Your task to perform on an android device: add a contact in the contacts app Image 0: 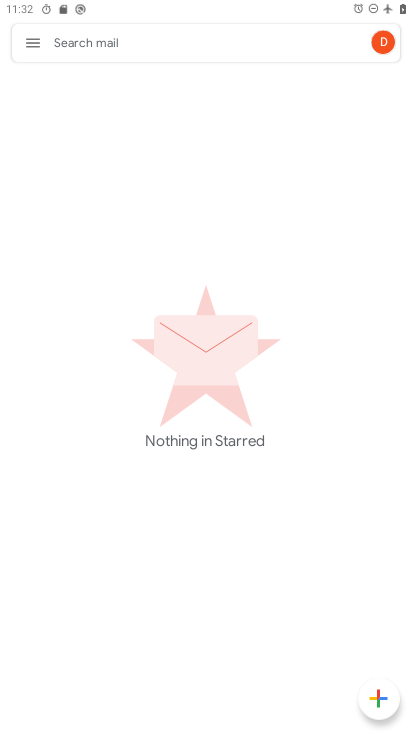
Step 0: press home button
Your task to perform on an android device: add a contact in the contacts app Image 1: 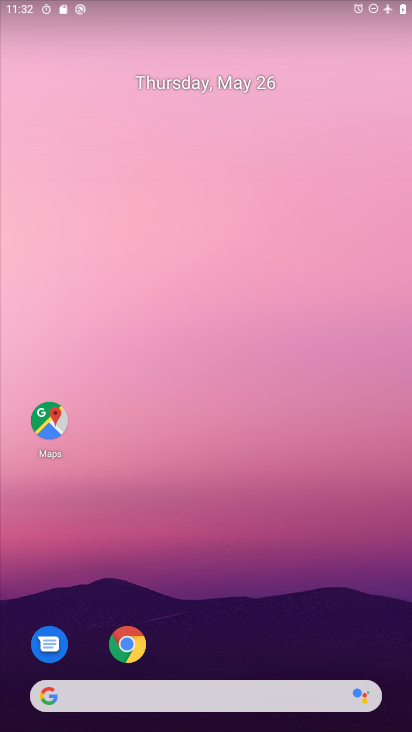
Step 1: drag from (360, 653) to (342, 240)
Your task to perform on an android device: add a contact in the contacts app Image 2: 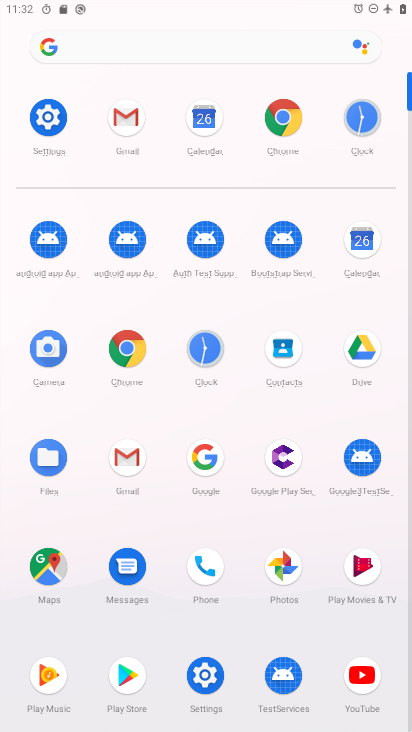
Step 2: click (280, 350)
Your task to perform on an android device: add a contact in the contacts app Image 3: 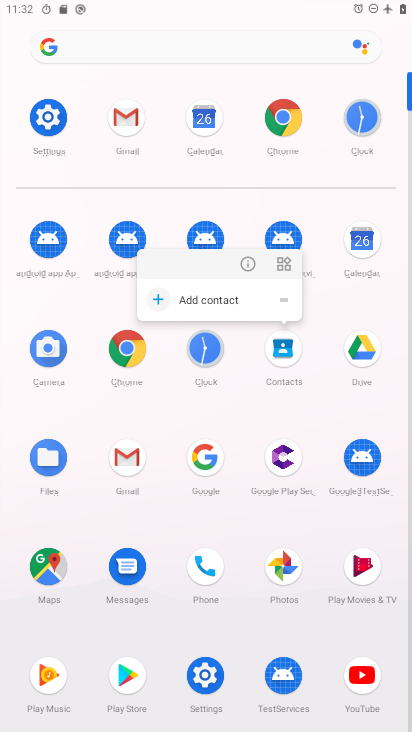
Step 3: click (280, 350)
Your task to perform on an android device: add a contact in the contacts app Image 4: 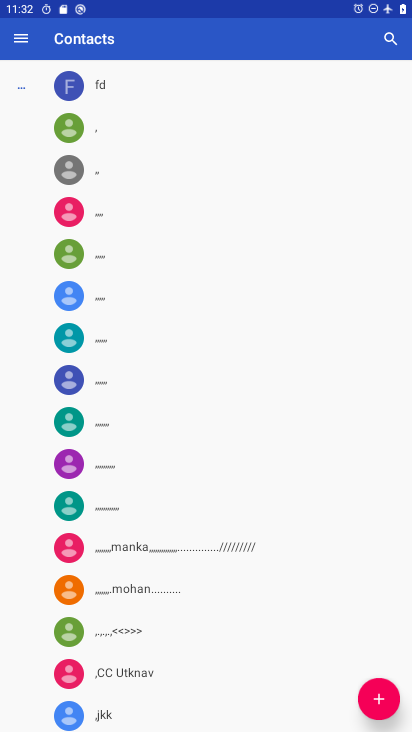
Step 4: click (376, 709)
Your task to perform on an android device: add a contact in the contacts app Image 5: 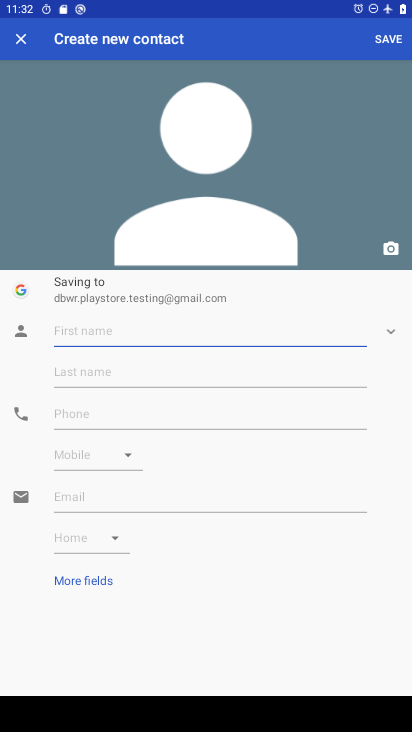
Step 5: click (195, 336)
Your task to perform on an android device: add a contact in the contacts app Image 6: 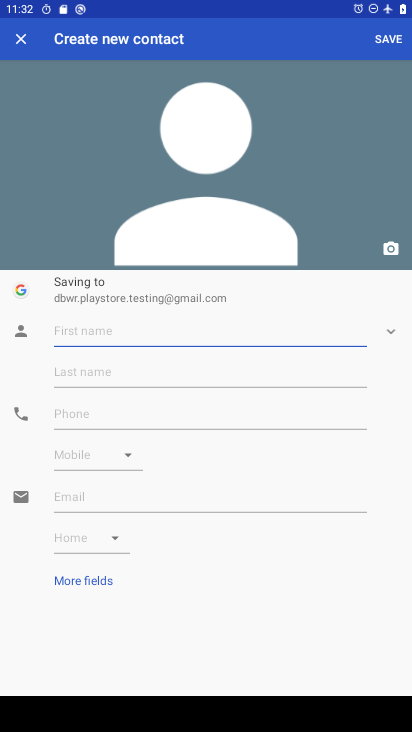
Step 6: type "my life"
Your task to perform on an android device: add a contact in the contacts app Image 7: 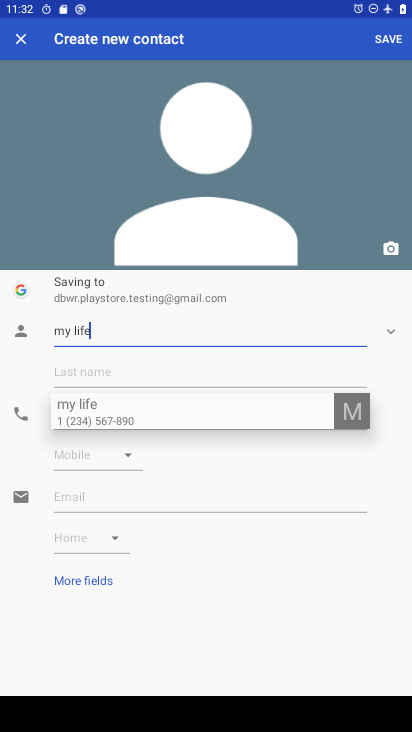
Step 7: click (401, 400)
Your task to perform on an android device: add a contact in the contacts app Image 8: 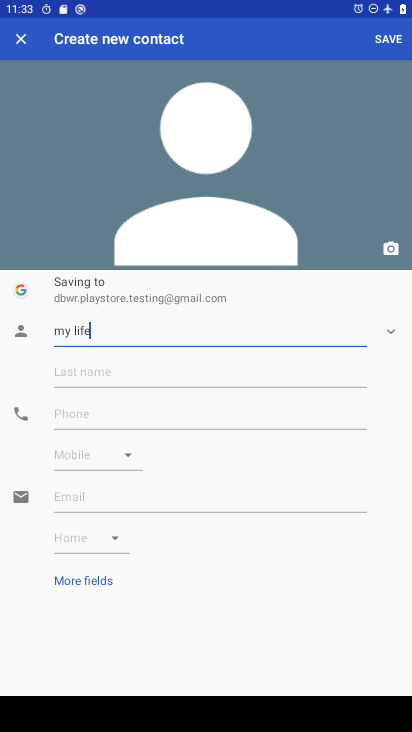
Step 8: click (143, 405)
Your task to perform on an android device: add a contact in the contacts app Image 9: 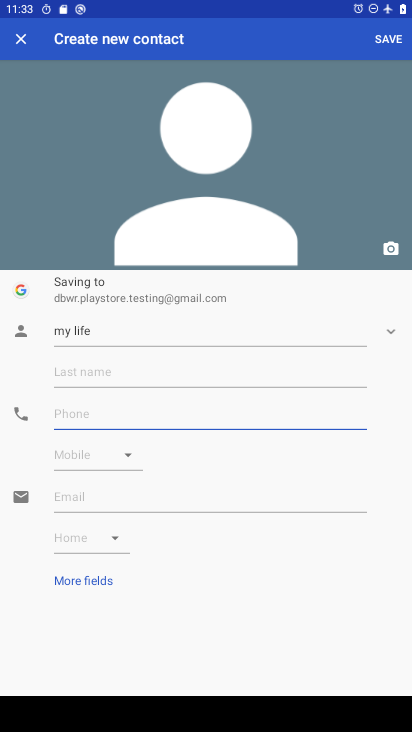
Step 9: type "123456789"
Your task to perform on an android device: add a contact in the contacts app Image 10: 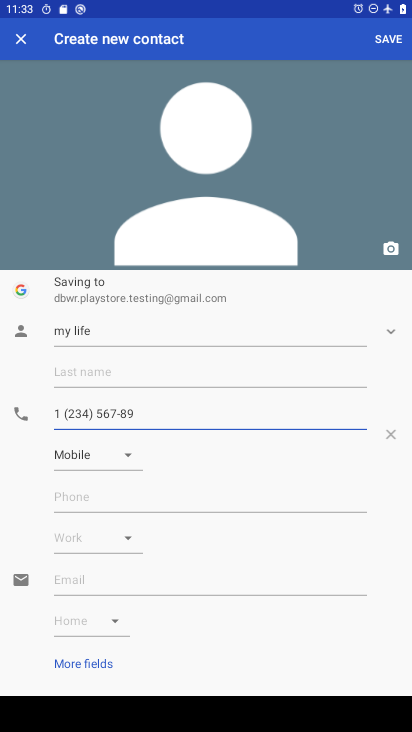
Step 10: click (386, 34)
Your task to perform on an android device: add a contact in the contacts app Image 11: 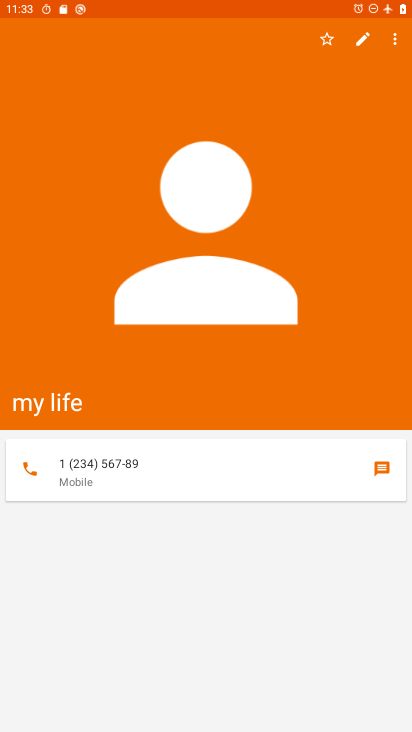
Step 11: task complete